Your task to perform on an android device: Open the calendar app, open the side menu, and click the "Day" option Image 0: 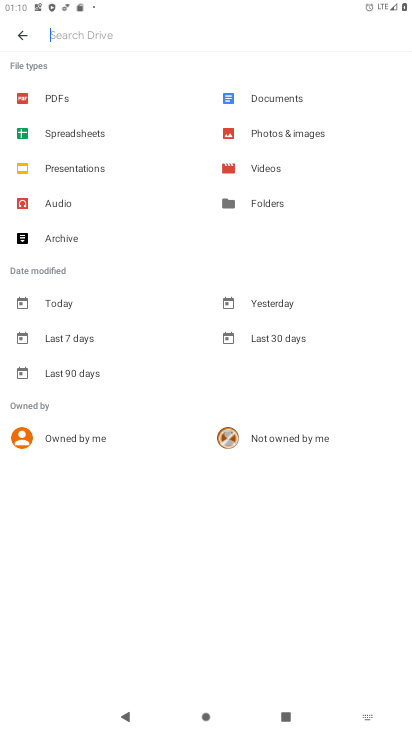
Step 0: drag from (304, 549) to (234, 113)
Your task to perform on an android device: Open the calendar app, open the side menu, and click the "Day" option Image 1: 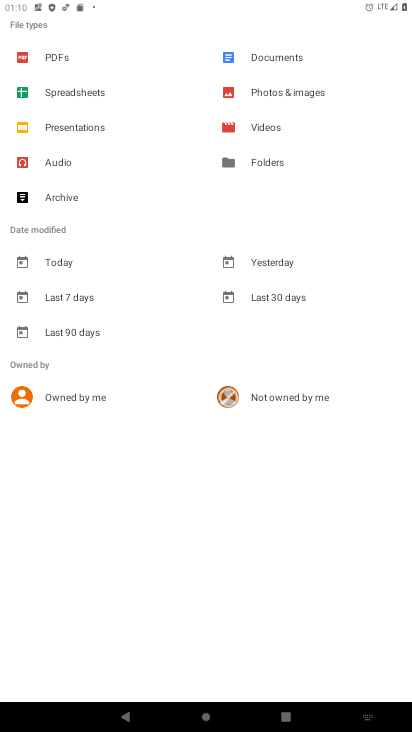
Step 1: press home button
Your task to perform on an android device: Open the calendar app, open the side menu, and click the "Day" option Image 2: 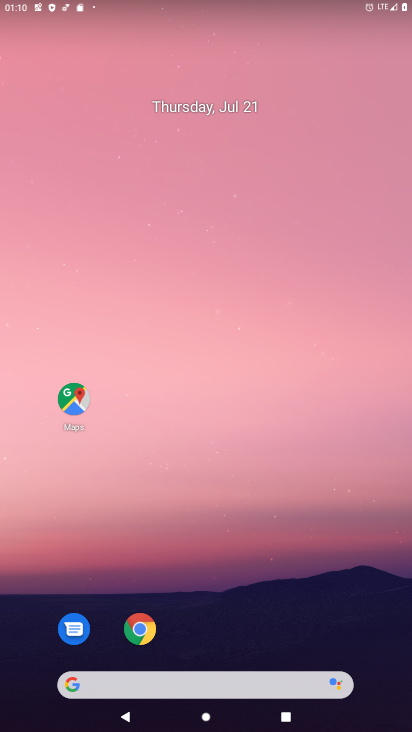
Step 2: drag from (259, 249) to (270, 80)
Your task to perform on an android device: Open the calendar app, open the side menu, and click the "Day" option Image 3: 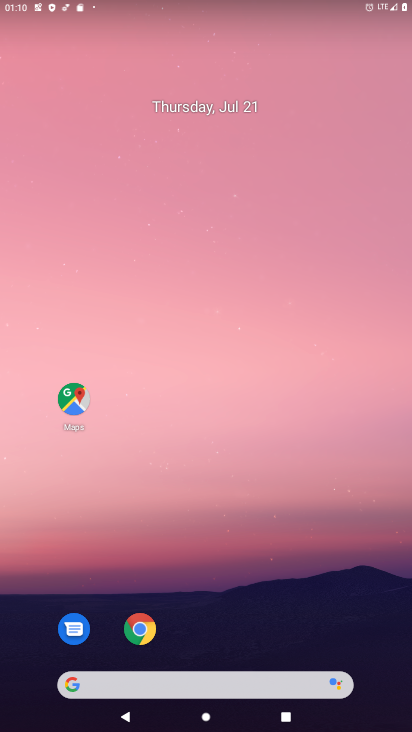
Step 3: drag from (369, 605) to (272, 88)
Your task to perform on an android device: Open the calendar app, open the side menu, and click the "Day" option Image 4: 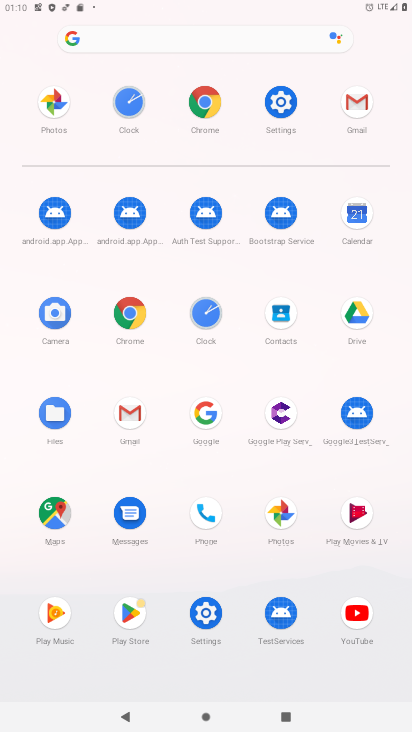
Step 4: click (356, 208)
Your task to perform on an android device: Open the calendar app, open the side menu, and click the "Day" option Image 5: 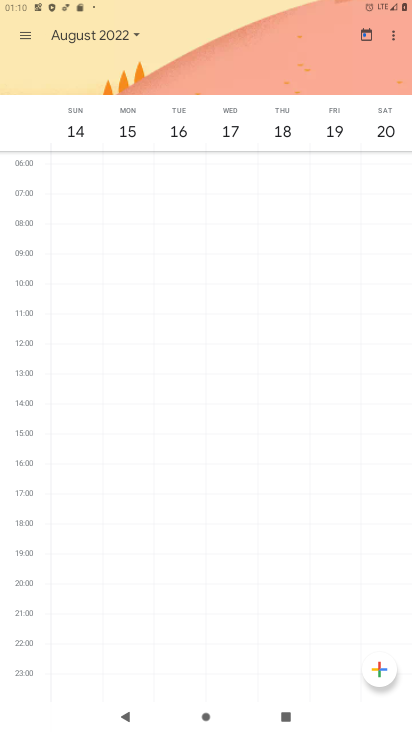
Step 5: click (32, 28)
Your task to perform on an android device: Open the calendar app, open the side menu, and click the "Day" option Image 6: 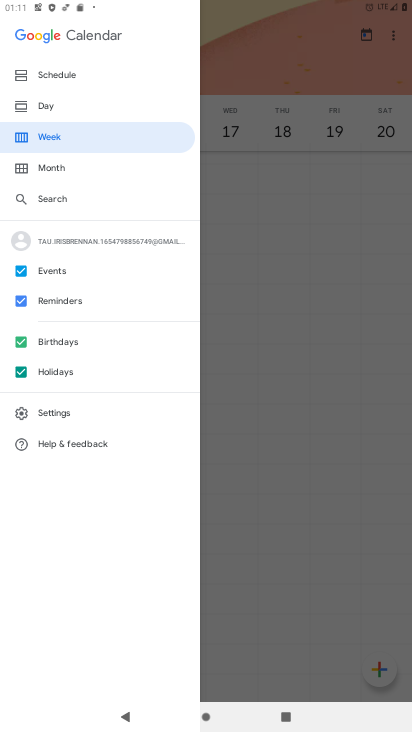
Step 6: click (48, 104)
Your task to perform on an android device: Open the calendar app, open the side menu, and click the "Day" option Image 7: 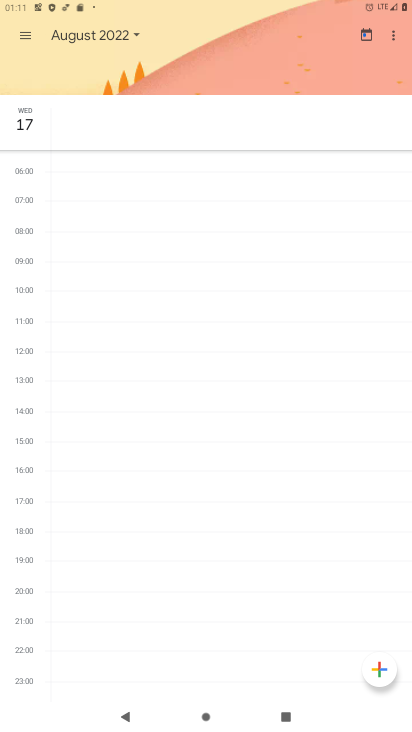
Step 7: task complete